Your task to perform on an android device: Open Google Chrome and click the shortcut for Amazon.com Image 0: 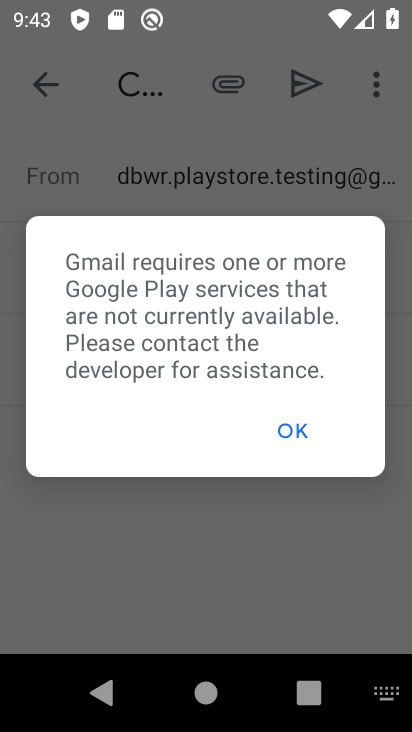
Step 0: press back button
Your task to perform on an android device: Open Google Chrome and click the shortcut for Amazon.com Image 1: 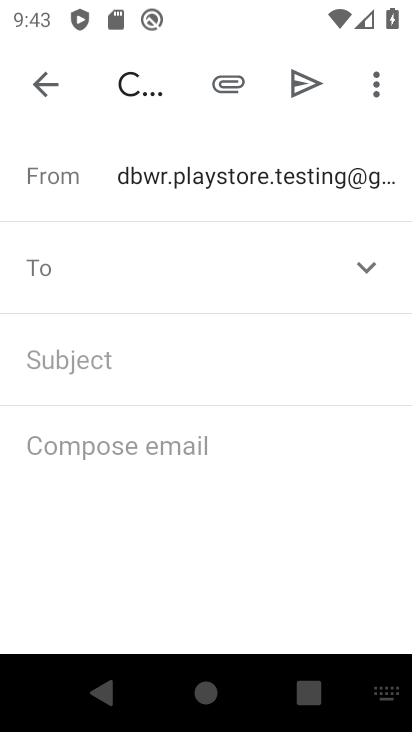
Step 1: click (48, 89)
Your task to perform on an android device: Open Google Chrome and click the shortcut for Amazon.com Image 2: 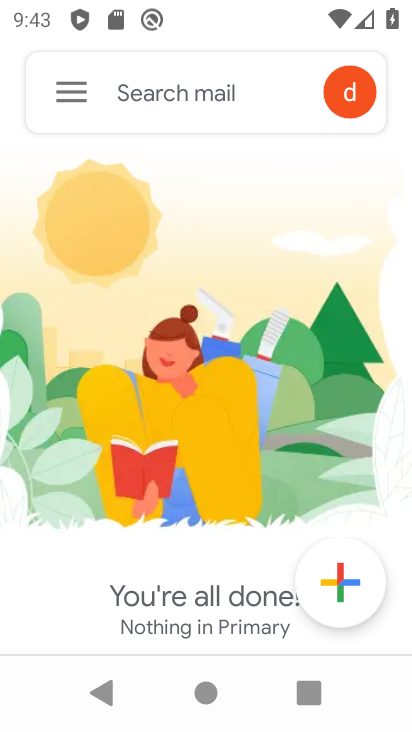
Step 2: press back button
Your task to perform on an android device: Open Google Chrome and click the shortcut for Amazon.com Image 3: 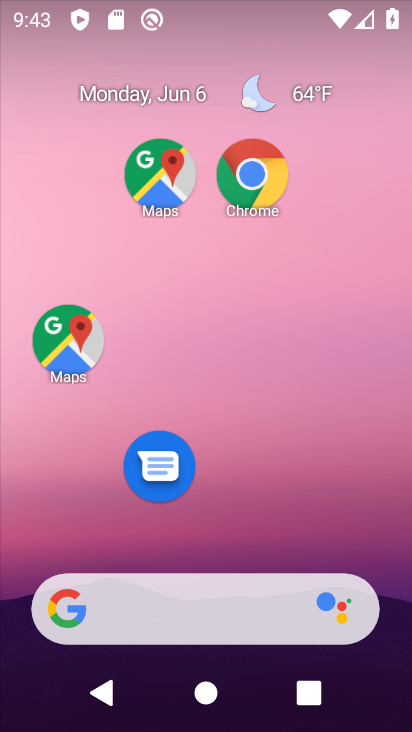
Step 3: drag from (261, 648) to (261, 132)
Your task to perform on an android device: Open Google Chrome and click the shortcut for Amazon.com Image 4: 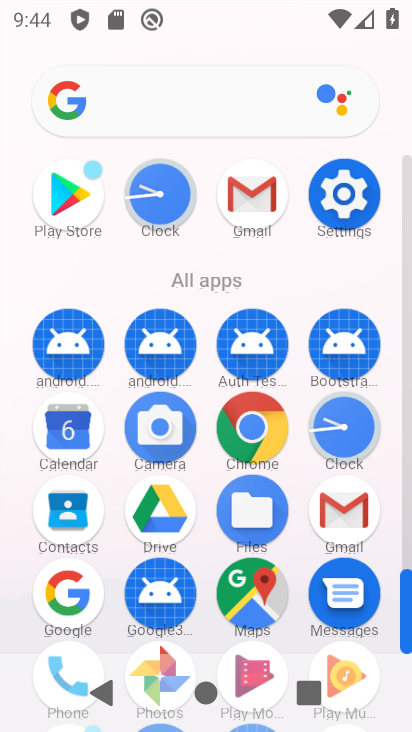
Step 4: click (244, 425)
Your task to perform on an android device: Open Google Chrome and click the shortcut for Amazon.com Image 5: 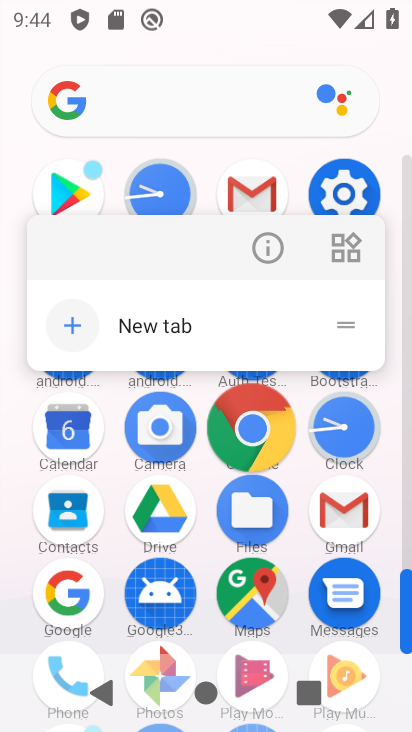
Step 5: click (245, 428)
Your task to perform on an android device: Open Google Chrome and click the shortcut for Amazon.com Image 6: 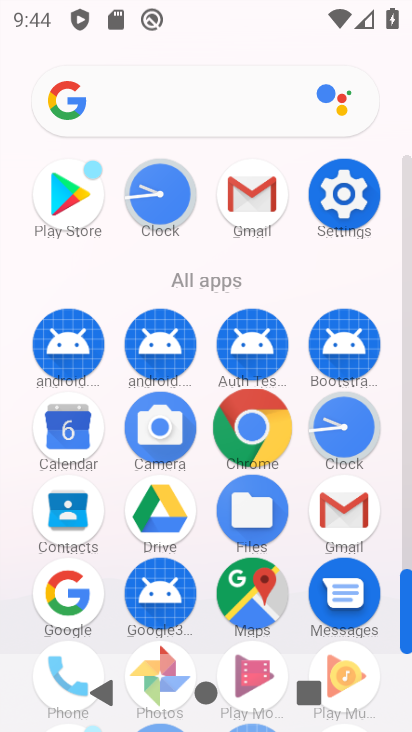
Step 6: click (247, 430)
Your task to perform on an android device: Open Google Chrome and click the shortcut for Amazon.com Image 7: 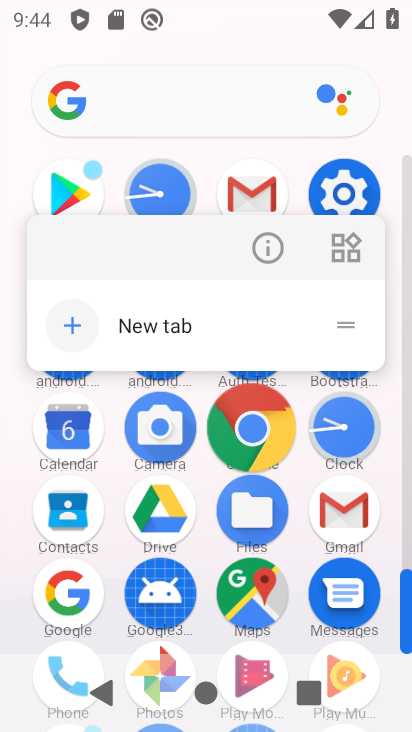
Step 7: click (247, 430)
Your task to perform on an android device: Open Google Chrome and click the shortcut for Amazon.com Image 8: 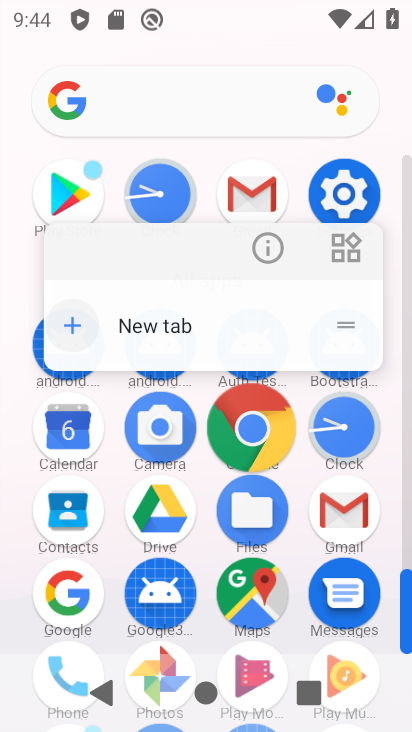
Step 8: click (241, 432)
Your task to perform on an android device: Open Google Chrome and click the shortcut for Amazon.com Image 9: 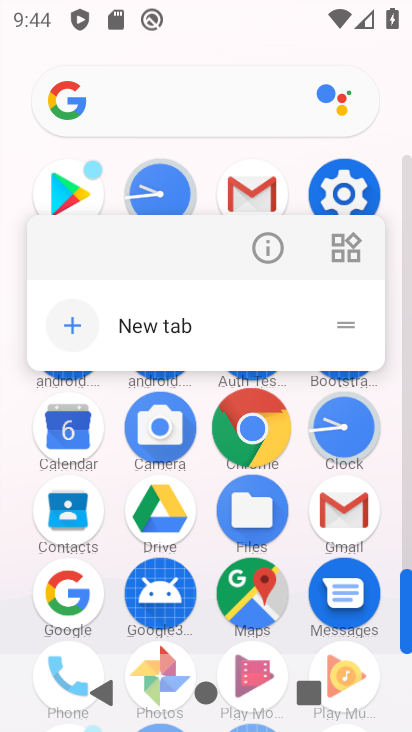
Step 9: click (241, 432)
Your task to perform on an android device: Open Google Chrome and click the shortcut for Amazon.com Image 10: 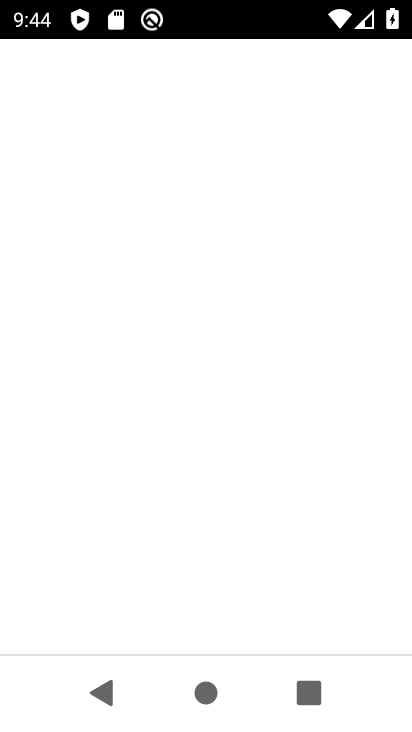
Step 10: click (238, 436)
Your task to perform on an android device: Open Google Chrome and click the shortcut for Amazon.com Image 11: 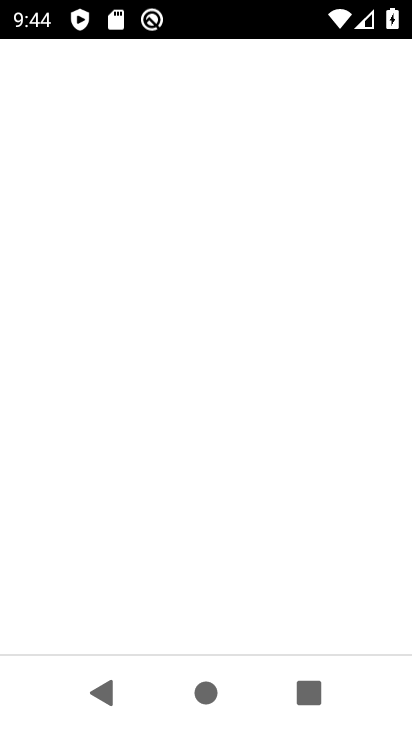
Step 11: click (237, 435)
Your task to perform on an android device: Open Google Chrome and click the shortcut for Amazon.com Image 12: 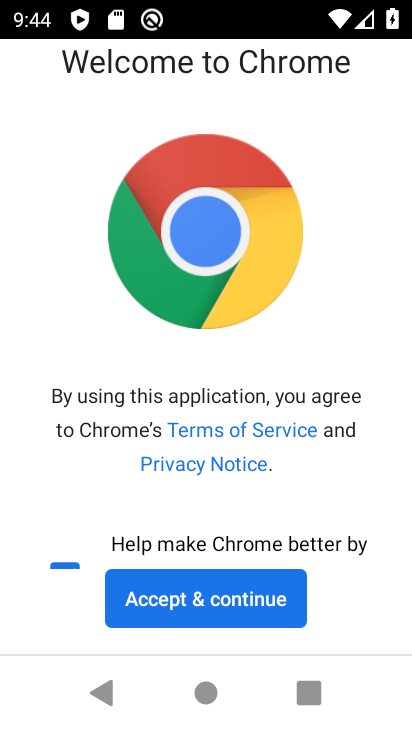
Step 12: click (213, 607)
Your task to perform on an android device: Open Google Chrome and click the shortcut for Amazon.com Image 13: 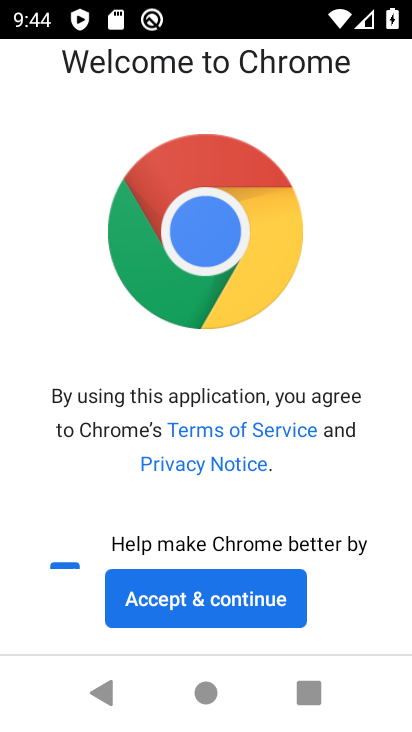
Step 13: click (212, 592)
Your task to perform on an android device: Open Google Chrome and click the shortcut for Amazon.com Image 14: 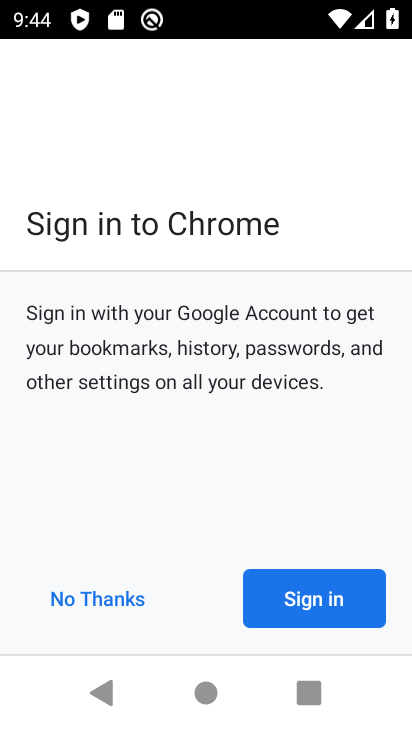
Step 14: click (212, 592)
Your task to perform on an android device: Open Google Chrome and click the shortcut for Amazon.com Image 15: 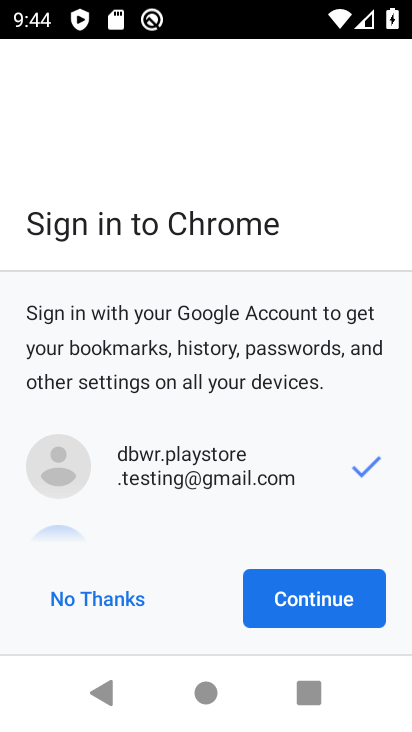
Step 15: click (213, 593)
Your task to perform on an android device: Open Google Chrome and click the shortcut for Amazon.com Image 16: 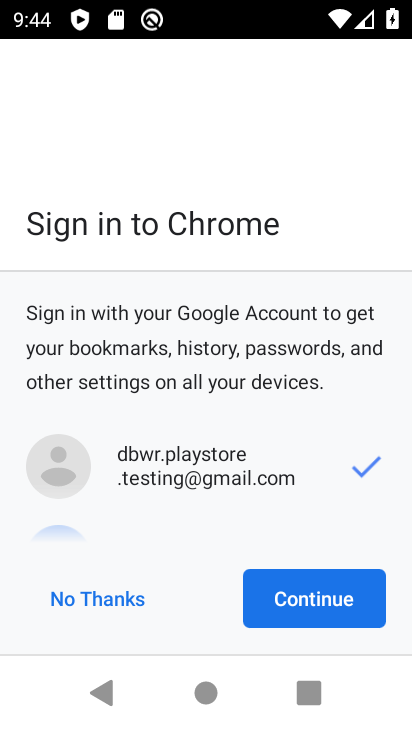
Step 16: click (335, 594)
Your task to perform on an android device: Open Google Chrome and click the shortcut for Amazon.com Image 17: 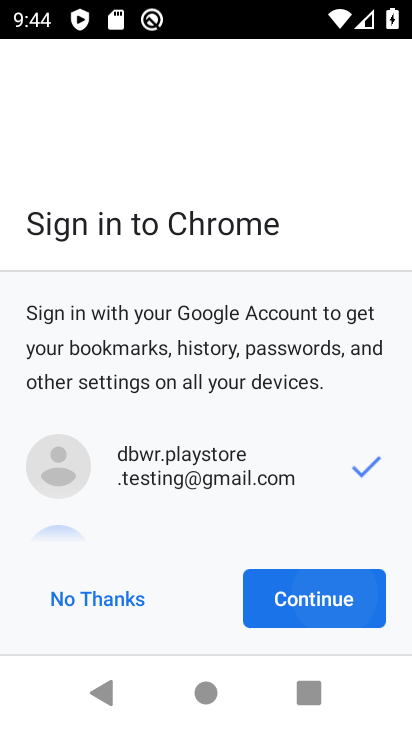
Step 17: click (335, 594)
Your task to perform on an android device: Open Google Chrome and click the shortcut for Amazon.com Image 18: 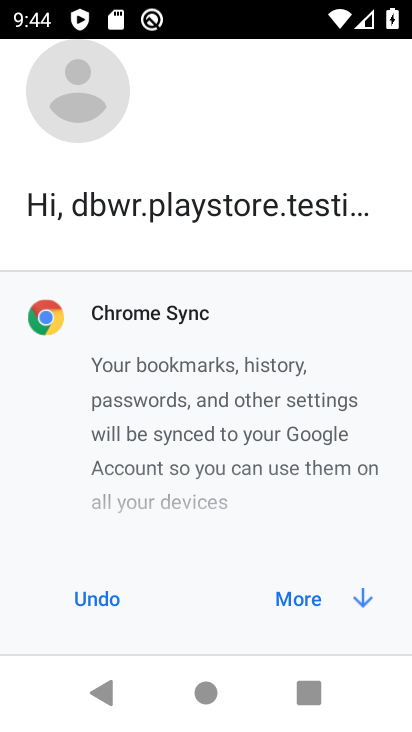
Step 18: click (339, 594)
Your task to perform on an android device: Open Google Chrome and click the shortcut for Amazon.com Image 19: 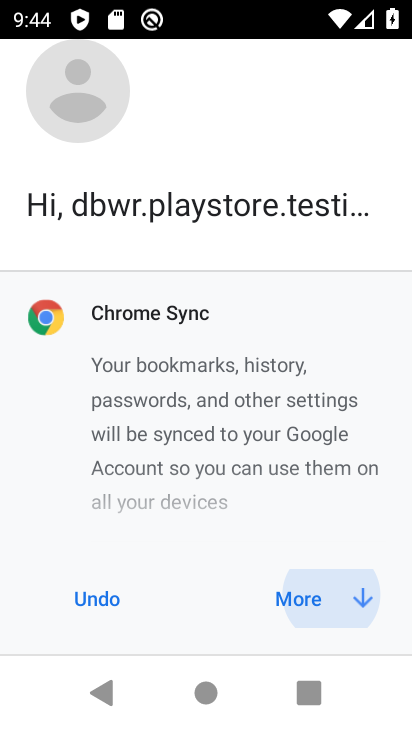
Step 19: click (339, 594)
Your task to perform on an android device: Open Google Chrome and click the shortcut for Amazon.com Image 20: 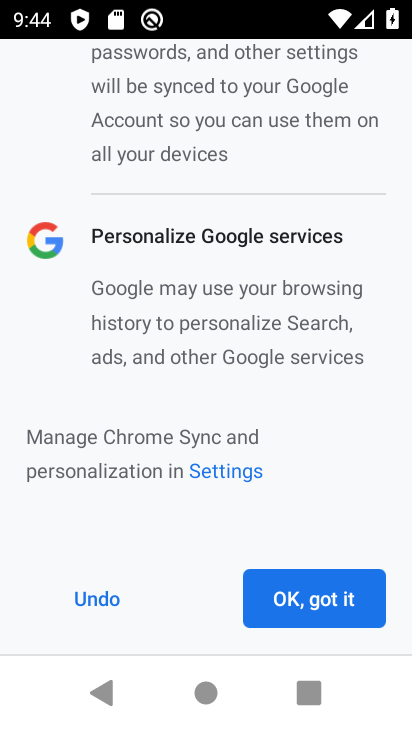
Step 20: click (341, 595)
Your task to perform on an android device: Open Google Chrome and click the shortcut for Amazon.com Image 21: 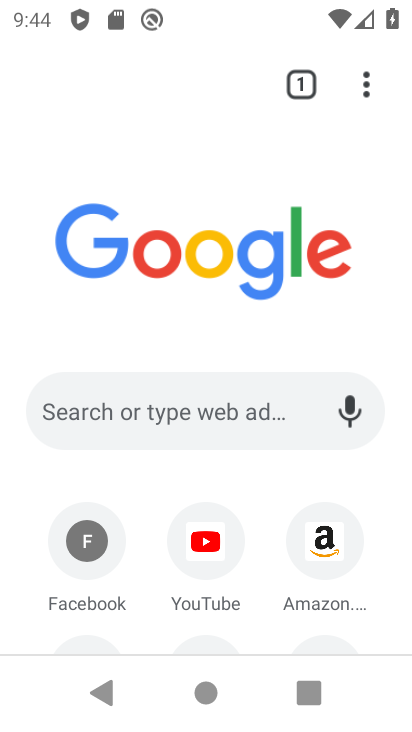
Step 21: click (328, 549)
Your task to perform on an android device: Open Google Chrome and click the shortcut for Amazon.com Image 22: 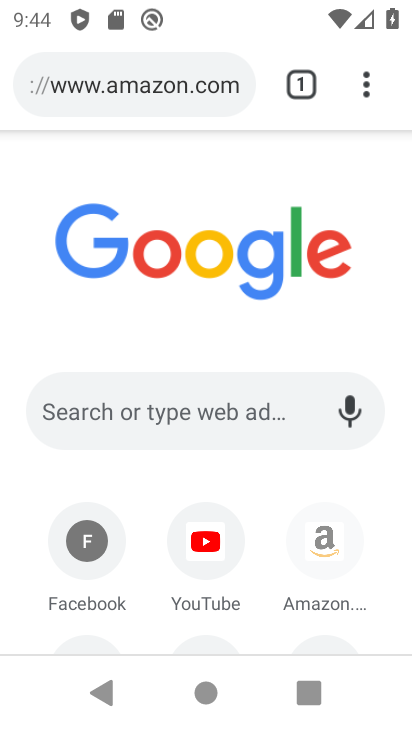
Step 22: click (328, 549)
Your task to perform on an android device: Open Google Chrome and click the shortcut for Amazon.com Image 23: 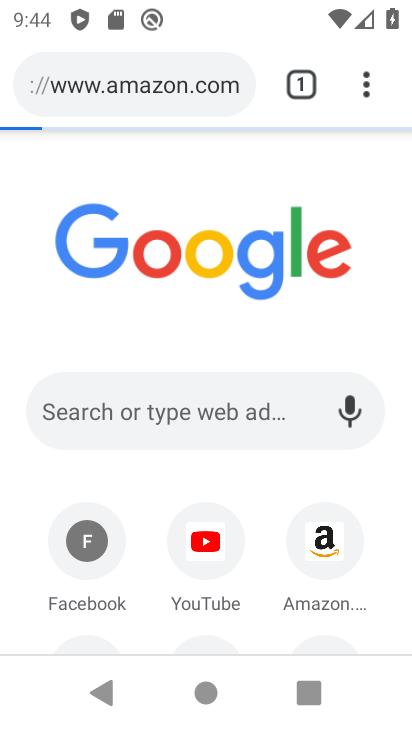
Step 23: click (329, 548)
Your task to perform on an android device: Open Google Chrome and click the shortcut for Amazon.com Image 24: 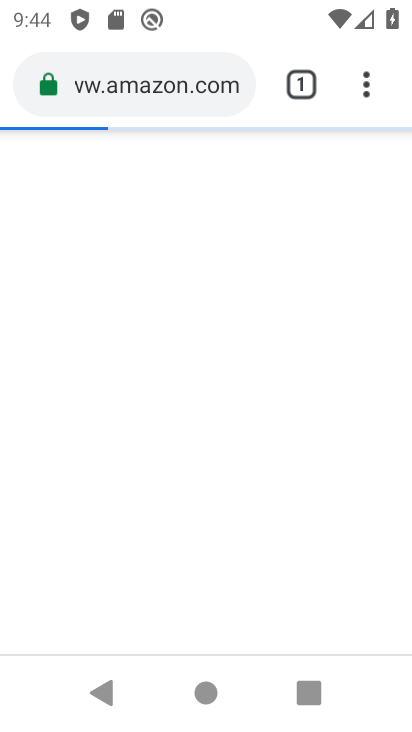
Step 24: click (329, 548)
Your task to perform on an android device: Open Google Chrome and click the shortcut for Amazon.com Image 25: 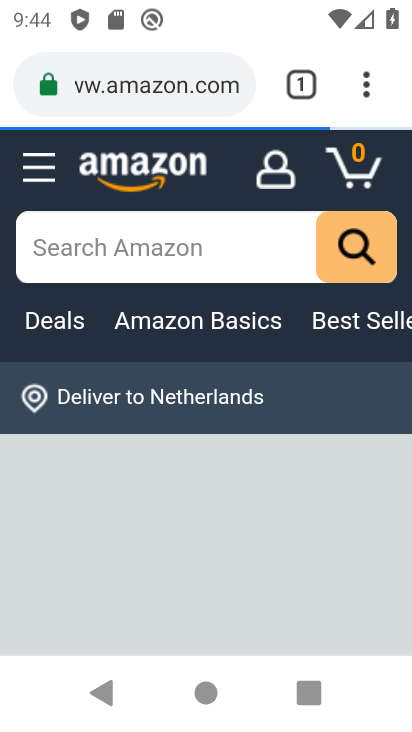
Step 25: task complete